Your task to perform on an android device: Open settings Image 0: 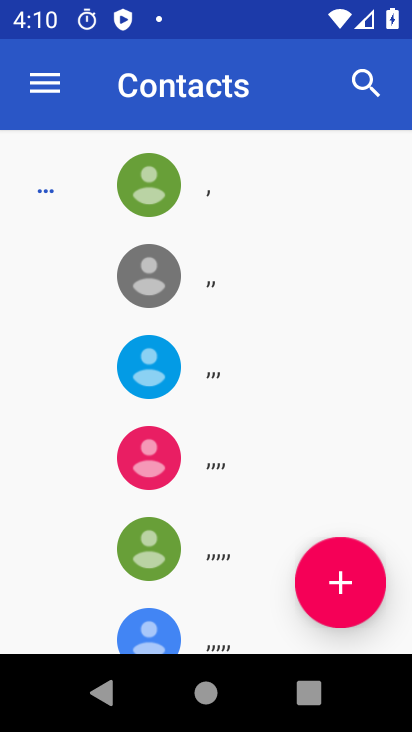
Step 0: press home button
Your task to perform on an android device: Open settings Image 1: 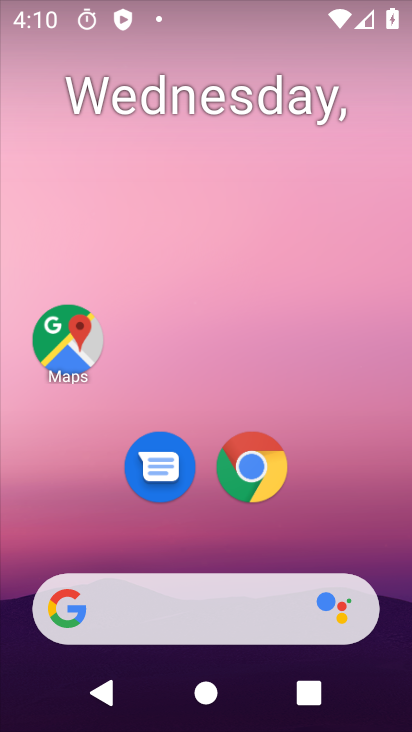
Step 1: drag from (326, 524) to (231, 53)
Your task to perform on an android device: Open settings Image 2: 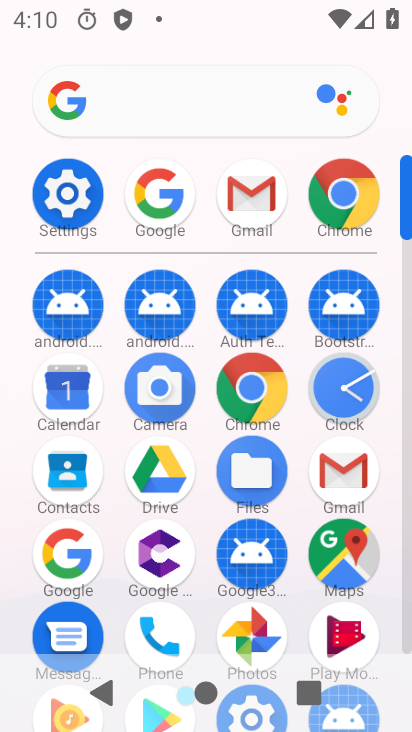
Step 2: click (68, 196)
Your task to perform on an android device: Open settings Image 3: 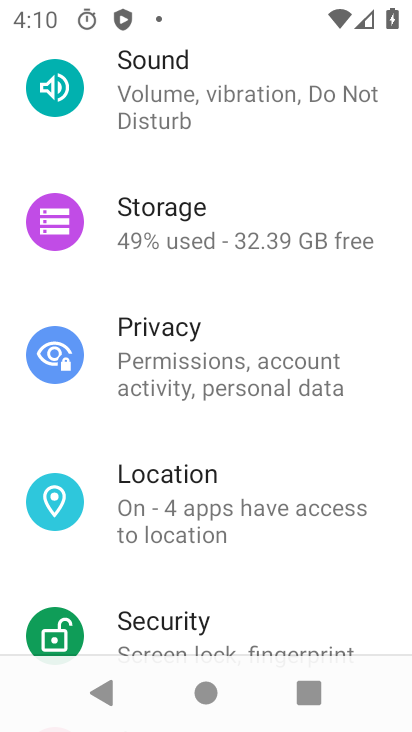
Step 3: task complete